Your task to perform on an android device: turn off sleep mode Image 0: 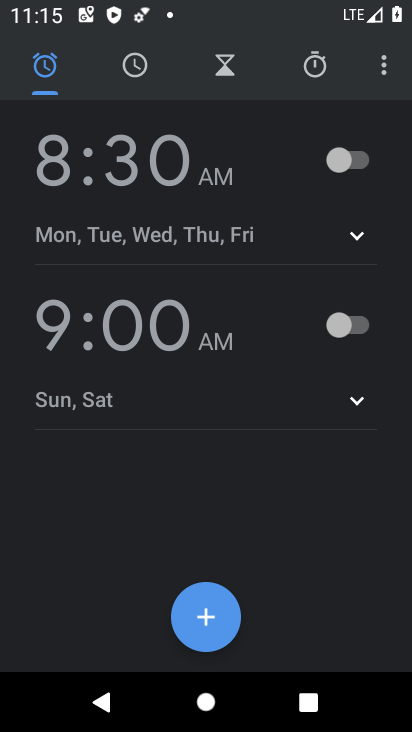
Step 0: press home button
Your task to perform on an android device: turn off sleep mode Image 1: 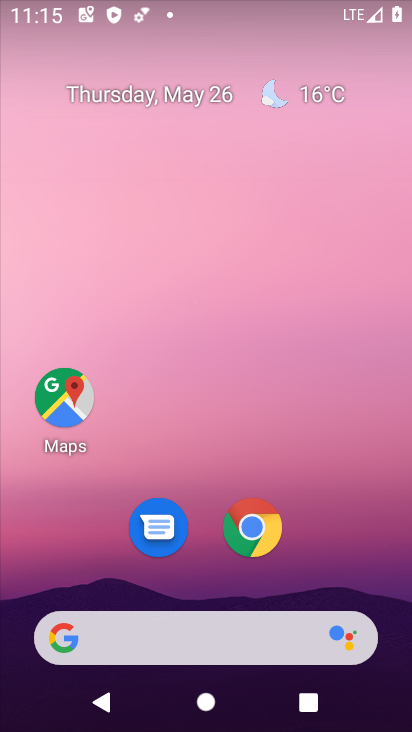
Step 1: drag from (194, 579) to (156, 6)
Your task to perform on an android device: turn off sleep mode Image 2: 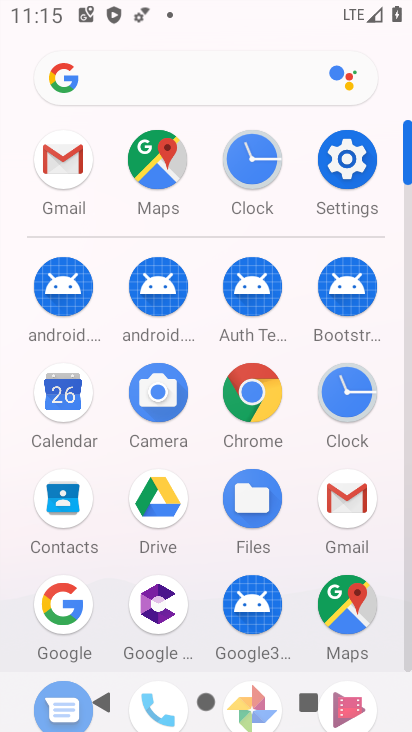
Step 2: click (356, 154)
Your task to perform on an android device: turn off sleep mode Image 3: 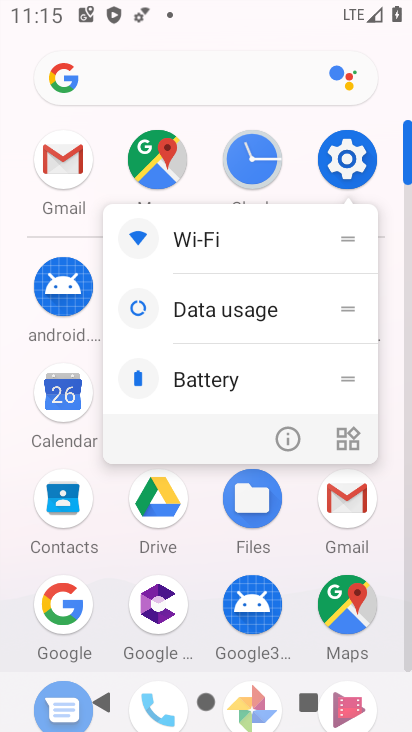
Step 3: click (347, 156)
Your task to perform on an android device: turn off sleep mode Image 4: 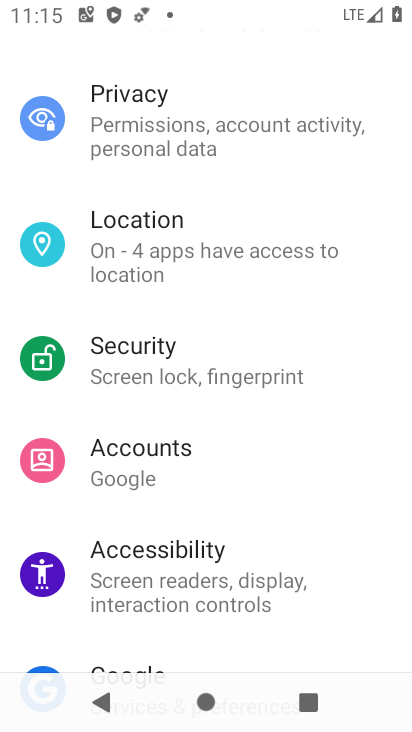
Step 4: drag from (158, 563) to (163, 212)
Your task to perform on an android device: turn off sleep mode Image 5: 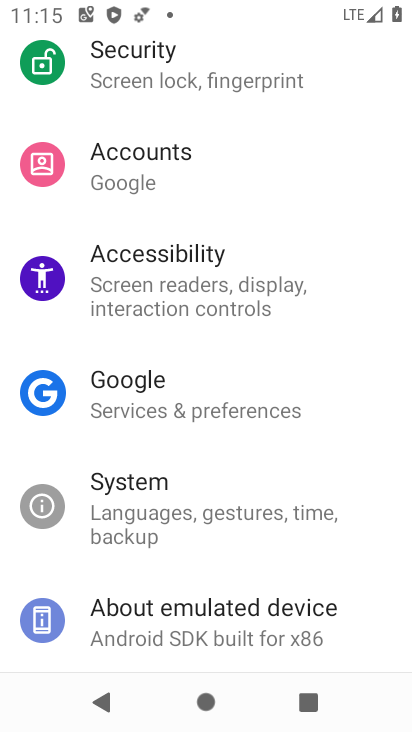
Step 5: drag from (222, 511) to (251, 171)
Your task to perform on an android device: turn off sleep mode Image 6: 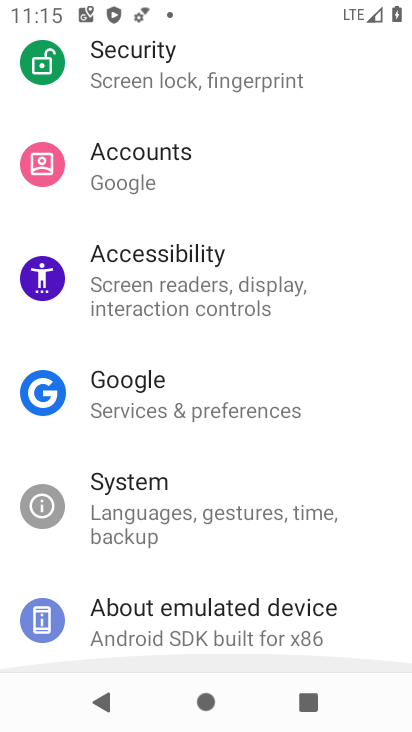
Step 6: drag from (254, 160) to (309, 622)
Your task to perform on an android device: turn off sleep mode Image 7: 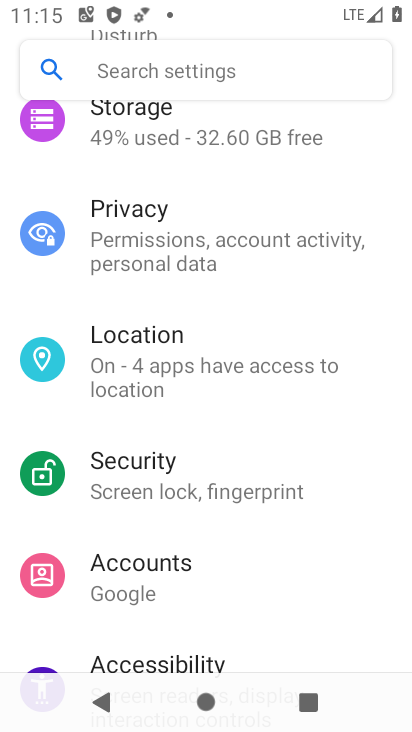
Step 7: drag from (222, 289) to (155, 646)
Your task to perform on an android device: turn off sleep mode Image 8: 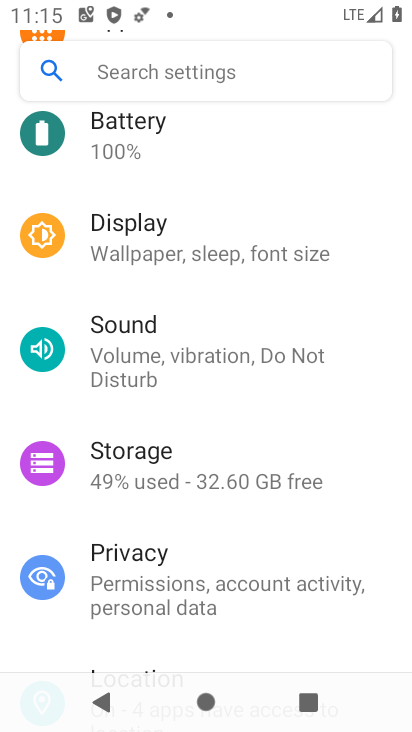
Step 8: drag from (137, 263) to (232, 644)
Your task to perform on an android device: turn off sleep mode Image 9: 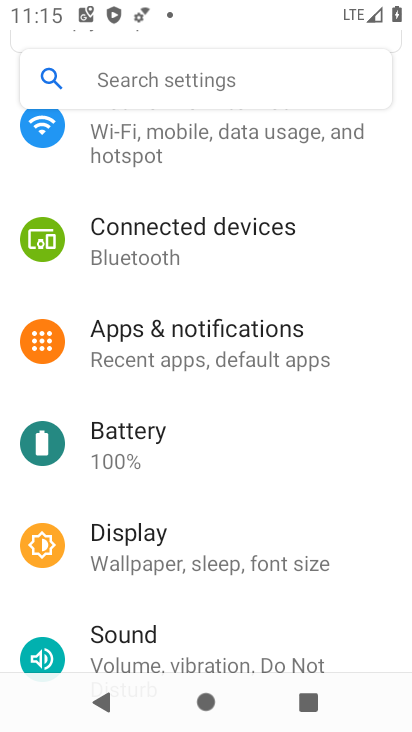
Step 9: click (204, 540)
Your task to perform on an android device: turn off sleep mode Image 10: 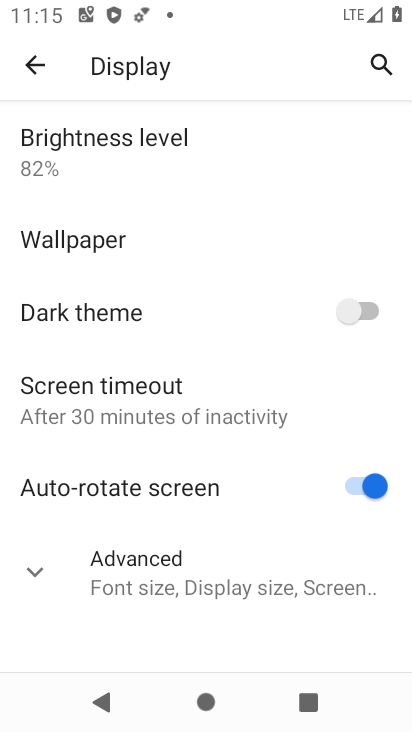
Step 10: click (180, 585)
Your task to perform on an android device: turn off sleep mode Image 11: 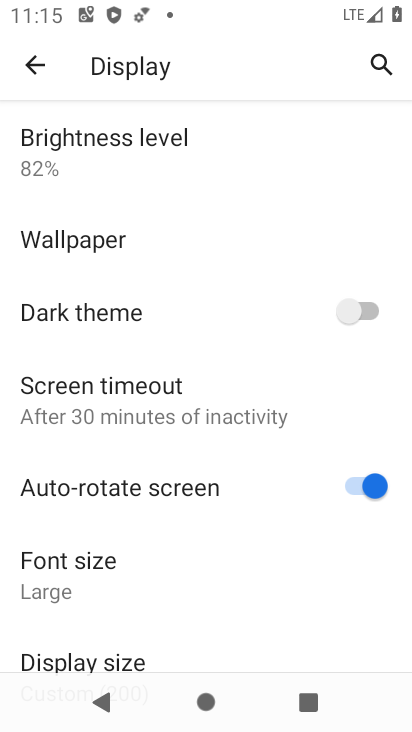
Step 11: task complete